Your task to perform on an android device: Open Android settings Image 0: 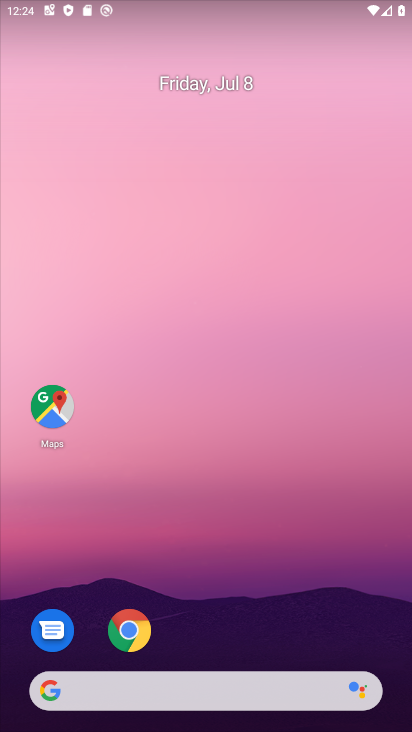
Step 0: drag from (375, 642) to (215, 29)
Your task to perform on an android device: Open Android settings Image 1: 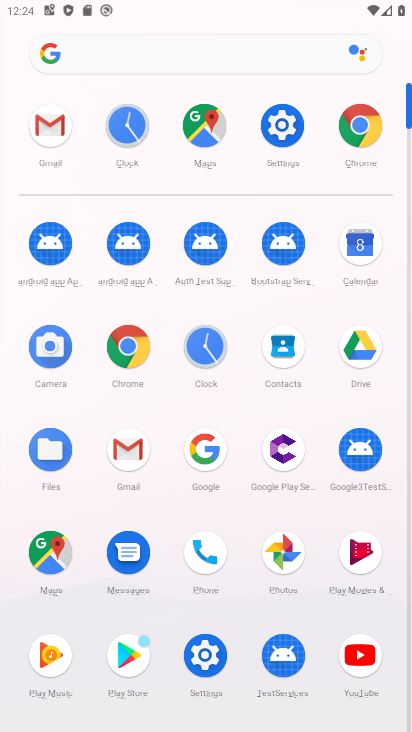
Step 1: click (209, 663)
Your task to perform on an android device: Open Android settings Image 2: 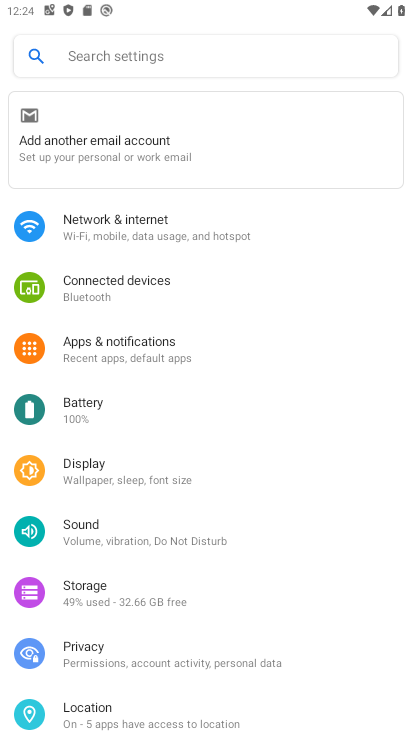
Step 2: task complete